Your task to perform on an android device: Open Yahoo.com Image 0: 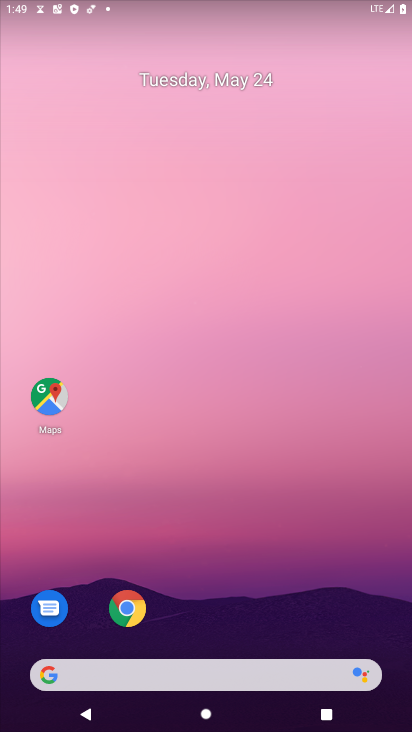
Step 0: click (211, 259)
Your task to perform on an android device: Open Yahoo.com Image 1: 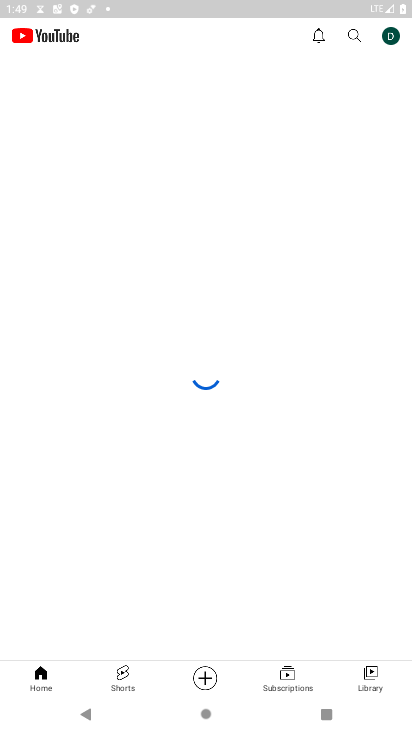
Step 1: press home button
Your task to perform on an android device: Open Yahoo.com Image 2: 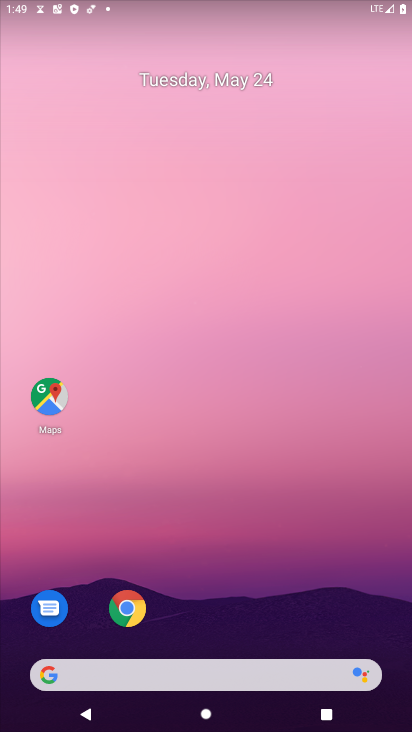
Step 2: click (125, 601)
Your task to perform on an android device: Open Yahoo.com Image 3: 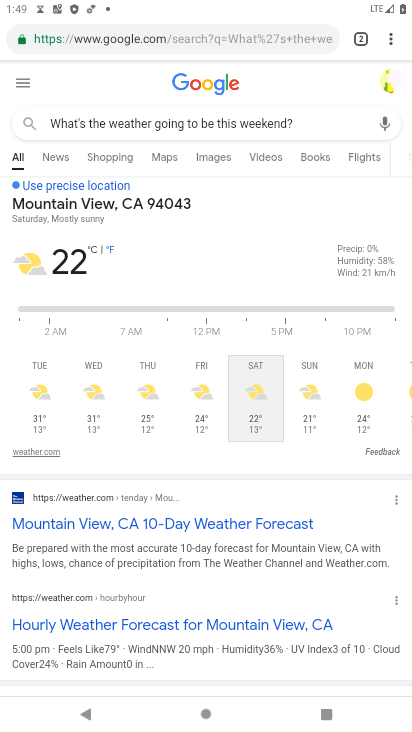
Step 3: click (294, 40)
Your task to perform on an android device: Open Yahoo.com Image 4: 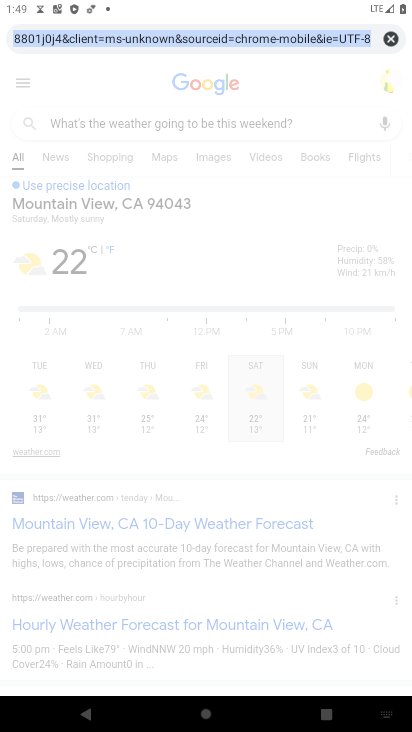
Step 4: type "yahoo.com"
Your task to perform on an android device: Open Yahoo.com Image 5: 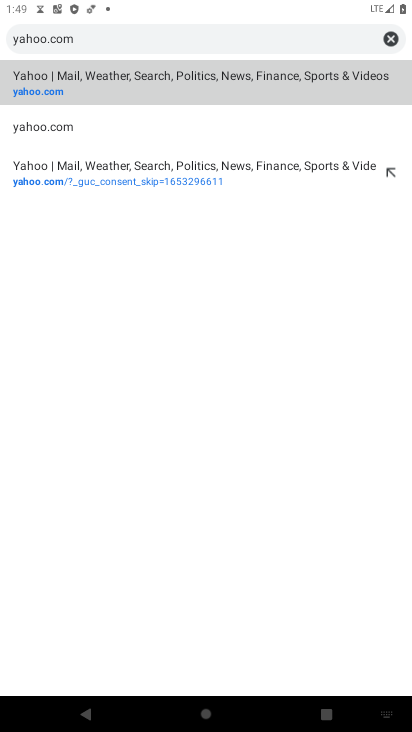
Step 5: click (50, 92)
Your task to perform on an android device: Open Yahoo.com Image 6: 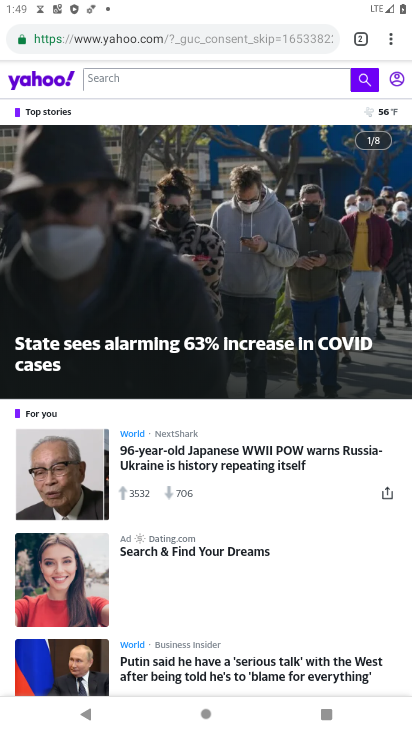
Step 6: task complete